Your task to perform on an android device: check data usage Image 0: 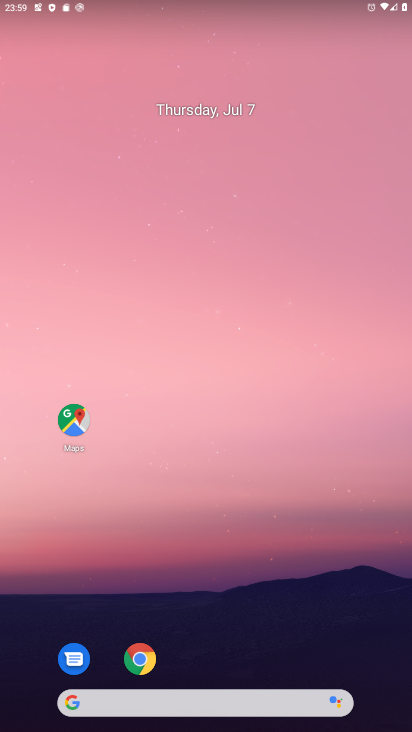
Step 0: drag from (255, 16) to (260, 492)
Your task to perform on an android device: check data usage Image 1: 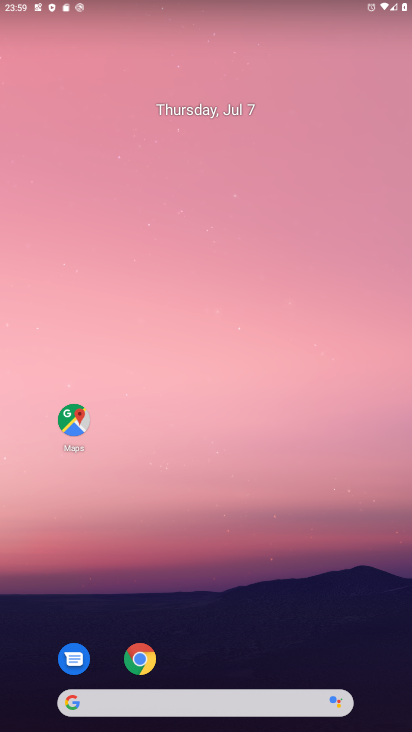
Step 1: drag from (200, 6) to (225, 471)
Your task to perform on an android device: check data usage Image 2: 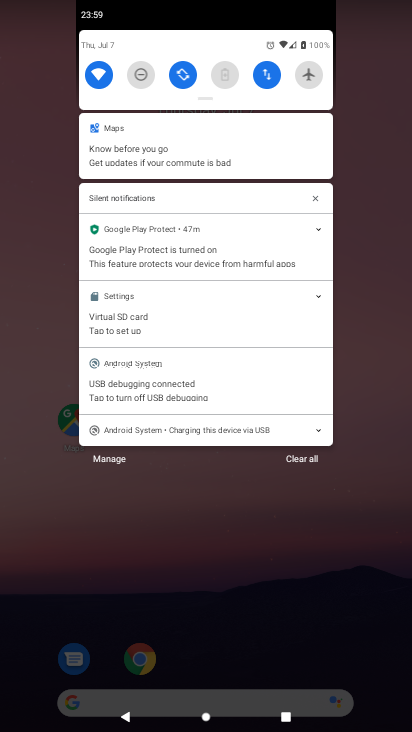
Step 2: click (265, 77)
Your task to perform on an android device: check data usage Image 3: 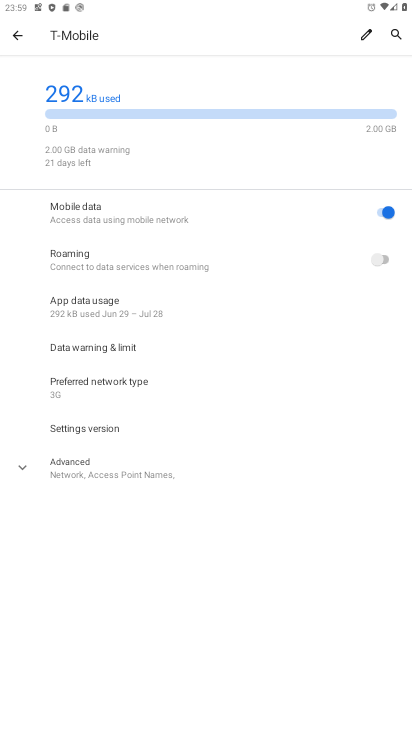
Step 3: task complete